Your task to perform on an android device: What is the recent news? Image 0: 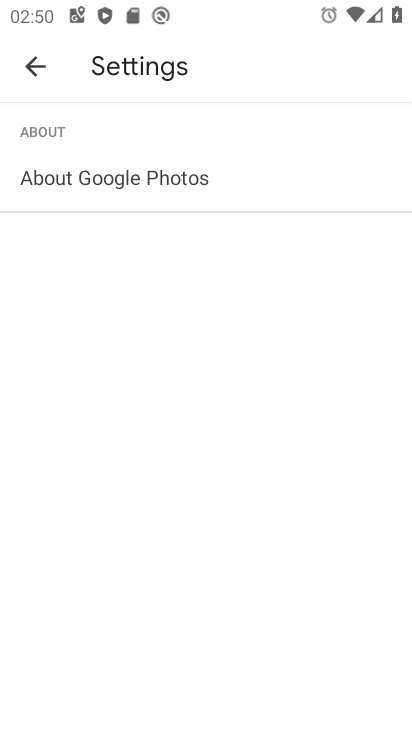
Step 0: press home button
Your task to perform on an android device: What is the recent news? Image 1: 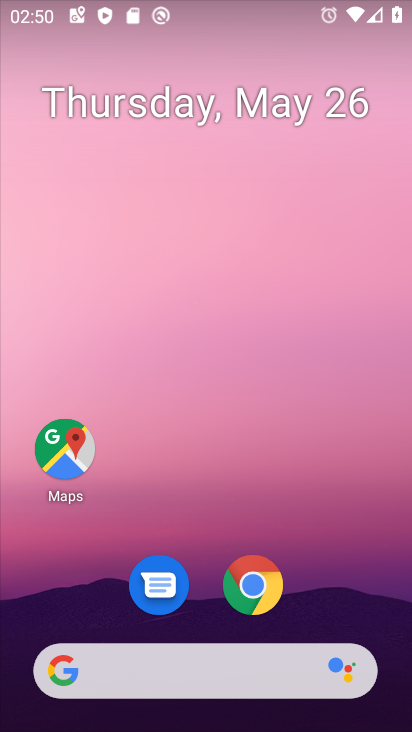
Step 1: click (196, 673)
Your task to perform on an android device: What is the recent news? Image 2: 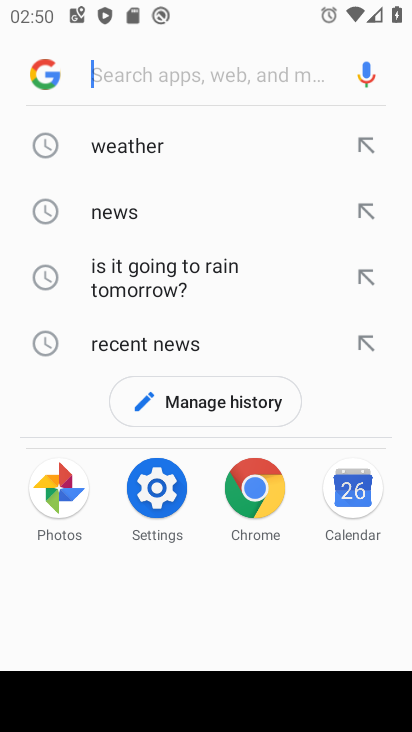
Step 2: click (94, 193)
Your task to perform on an android device: What is the recent news? Image 3: 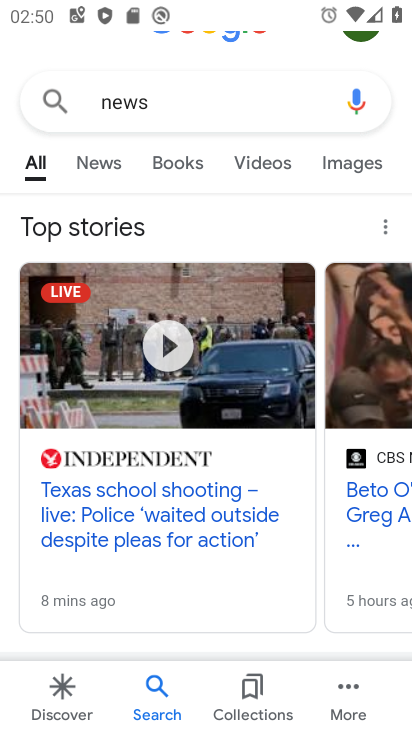
Step 3: click (105, 146)
Your task to perform on an android device: What is the recent news? Image 4: 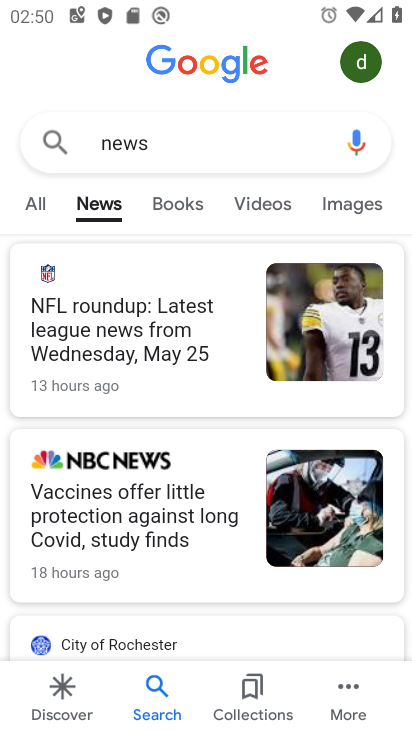
Step 4: drag from (174, 535) to (183, 268)
Your task to perform on an android device: What is the recent news? Image 5: 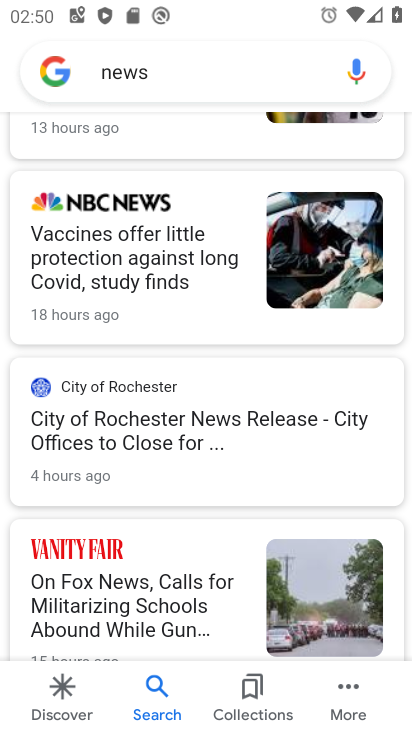
Step 5: drag from (148, 455) to (151, 299)
Your task to perform on an android device: What is the recent news? Image 6: 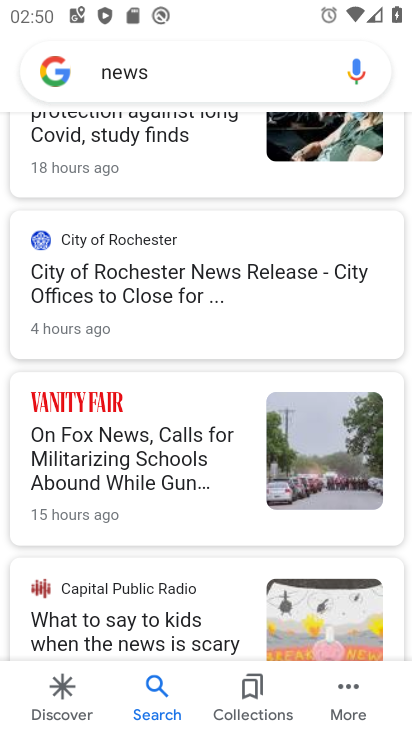
Step 6: click (151, 296)
Your task to perform on an android device: What is the recent news? Image 7: 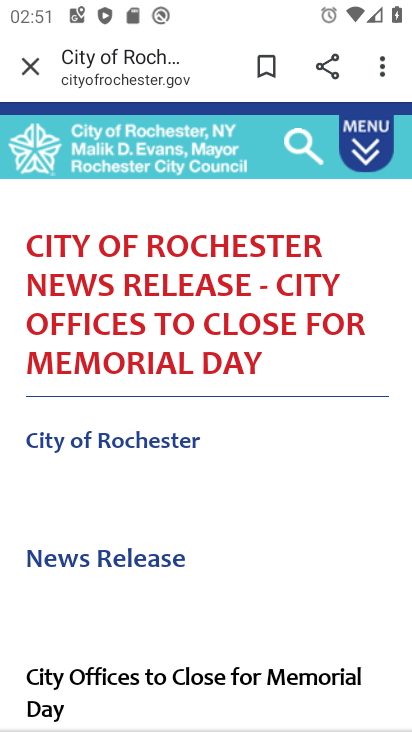
Step 7: task complete